Your task to perform on an android device: change text size in settings app Image 0: 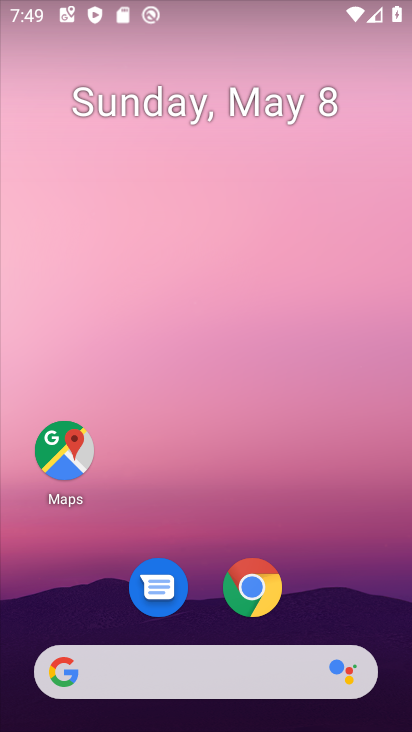
Step 0: drag from (312, 544) to (265, 63)
Your task to perform on an android device: change text size in settings app Image 1: 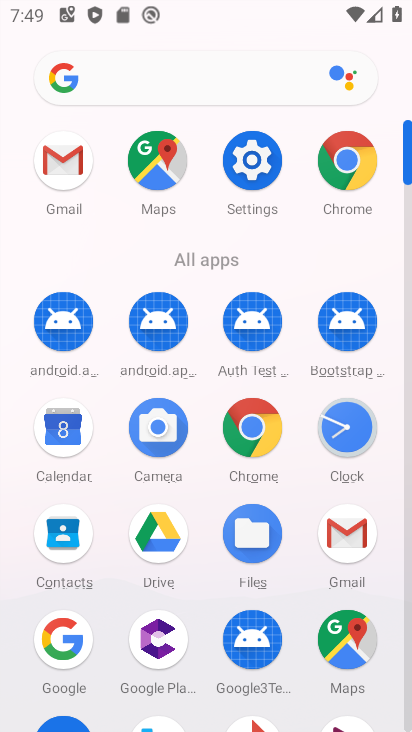
Step 1: drag from (212, 494) to (206, 236)
Your task to perform on an android device: change text size in settings app Image 2: 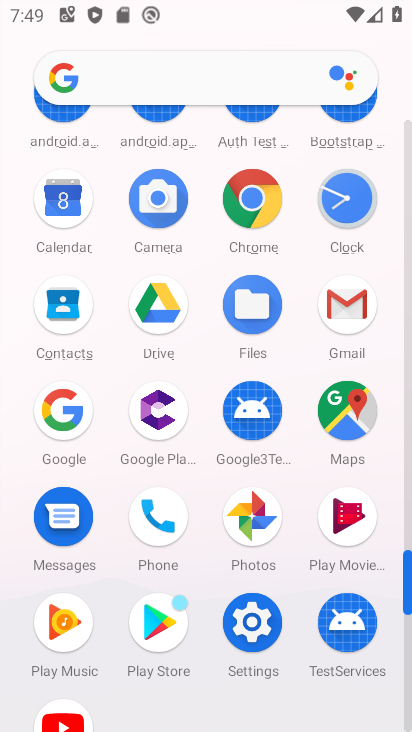
Step 2: click (252, 623)
Your task to perform on an android device: change text size in settings app Image 3: 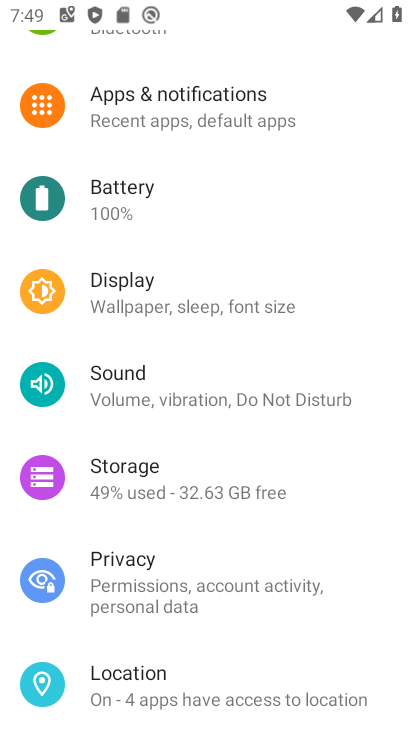
Step 3: drag from (258, 562) to (269, 468)
Your task to perform on an android device: change text size in settings app Image 4: 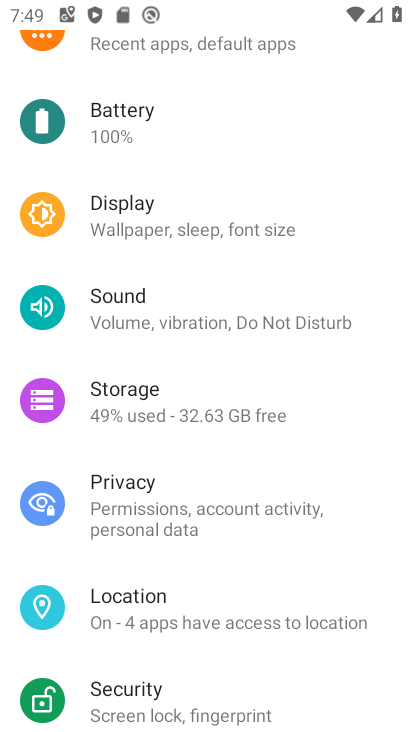
Step 4: drag from (196, 573) to (265, 471)
Your task to perform on an android device: change text size in settings app Image 5: 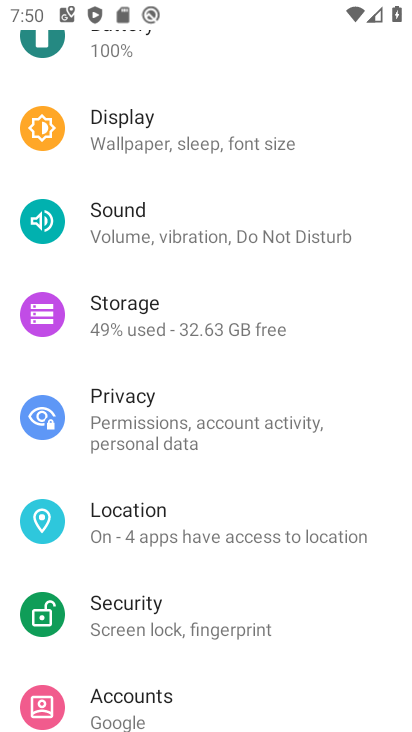
Step 5: drag from (182, 578) to (255, 455)
Your task to perform on an android device: change text size in settings app Image 6: 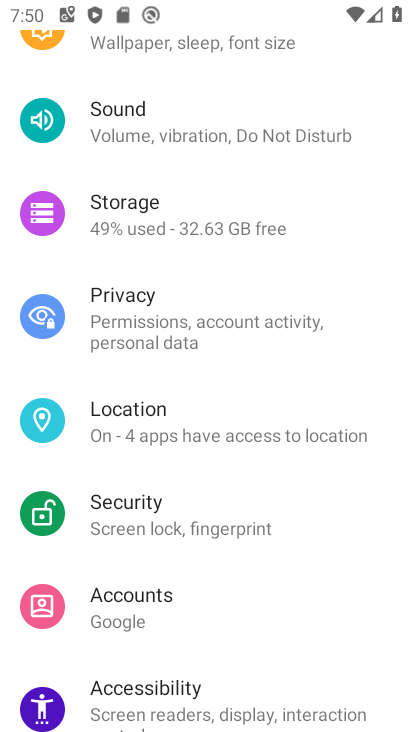
Step 6: drag from (154, 564) to (204, 482)
Your task to perform on an android device: change text size in settings app Image 7: 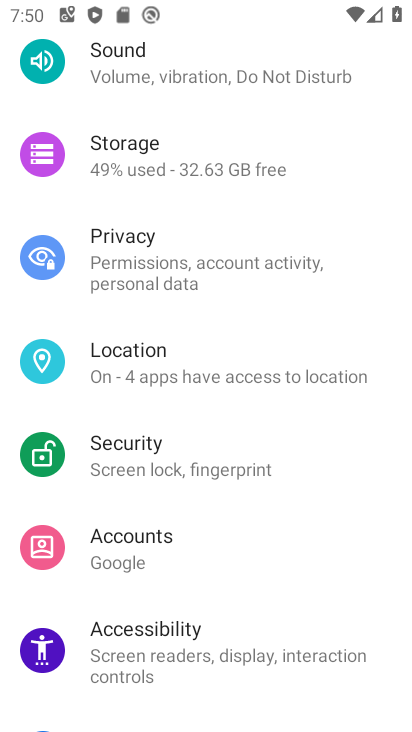
Step 7: drag from (147, 577) to (227, 467)
Your task to perform on an android device: change text size in settings app Image 8: 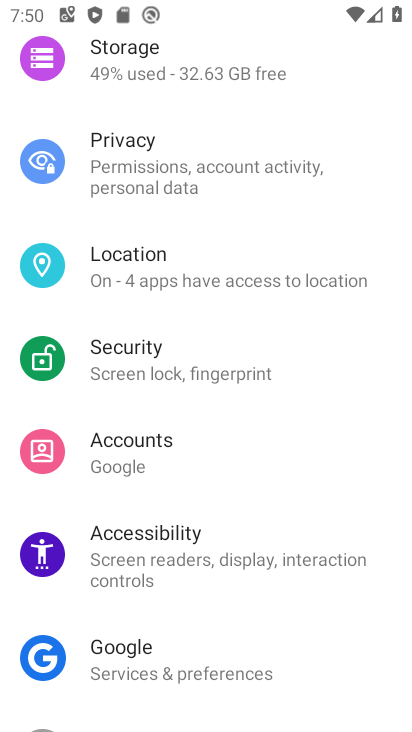
Step 8: drag from (116, 613) to (208, 508)
Your task to perform on an android device: change text size in settings app Image 9: 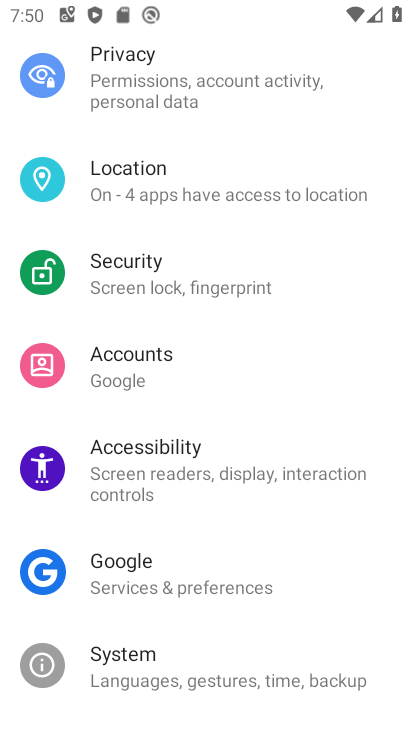
Step 9: click (146, 452)
Your task to perform on an android device: change text size in settings app Image 10: 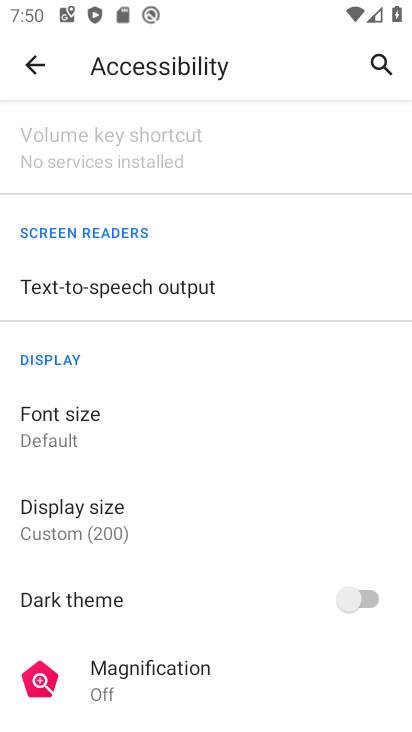
Step 10: click (67, 409)
Your task to perform on an android device: change text size in settings app Image 11: 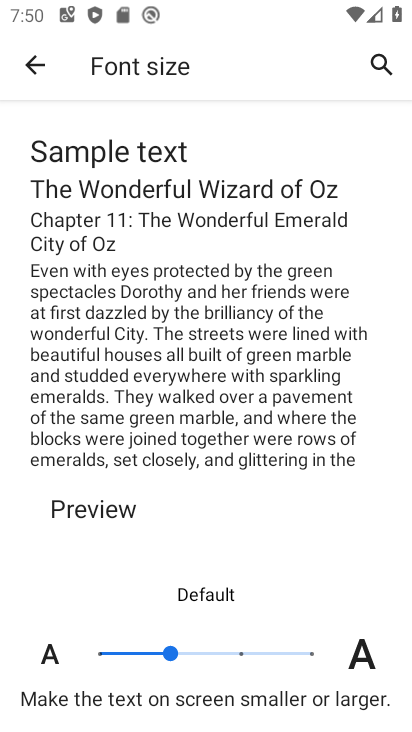
Step 11: click (237, 651)
Your task to perform on an android device: change text size in settings app Image 12: 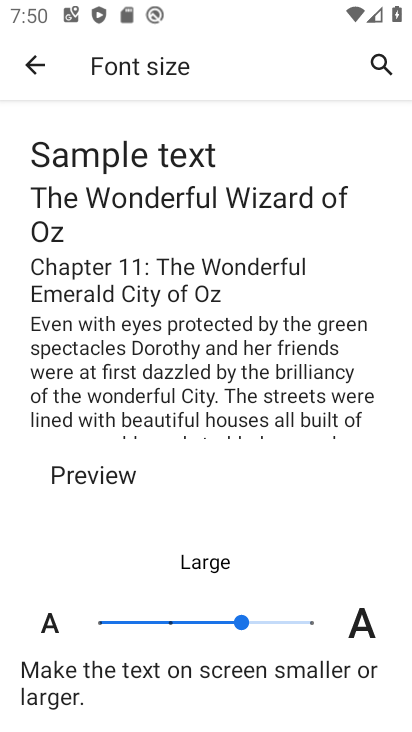
Step 12: task complete